Your task to perform on an android device: Search for pizza restaurants on Maps Image 0: 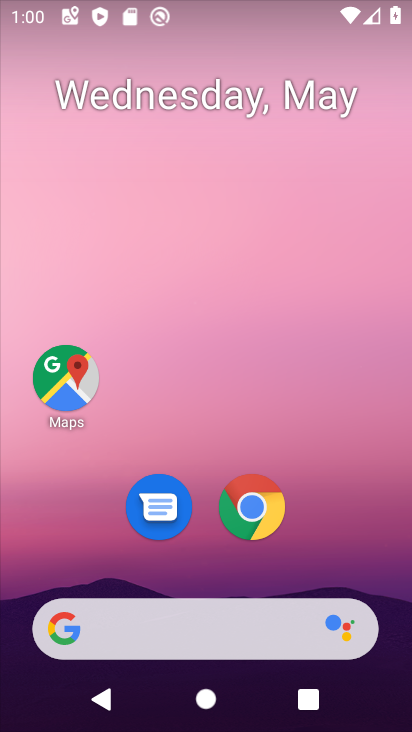
Step 0: click (60, 380)
Your task to perform on an android device: Search for pizza restaurants on Maps Image 1: 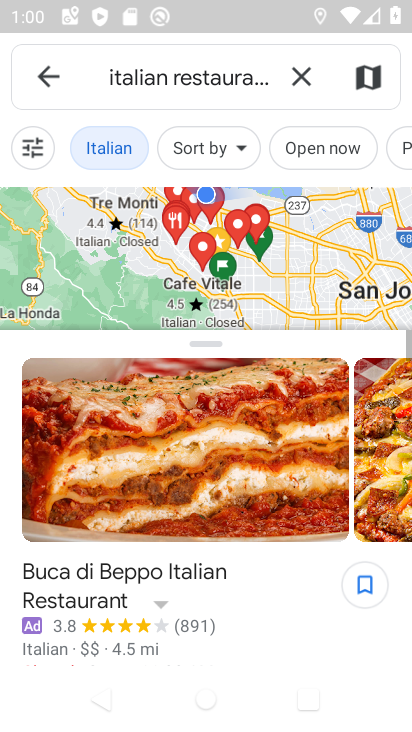
Step 1: click (308, 81)
Your task to perform on an android device: Search for pizza restaurants on Maps Image 2: 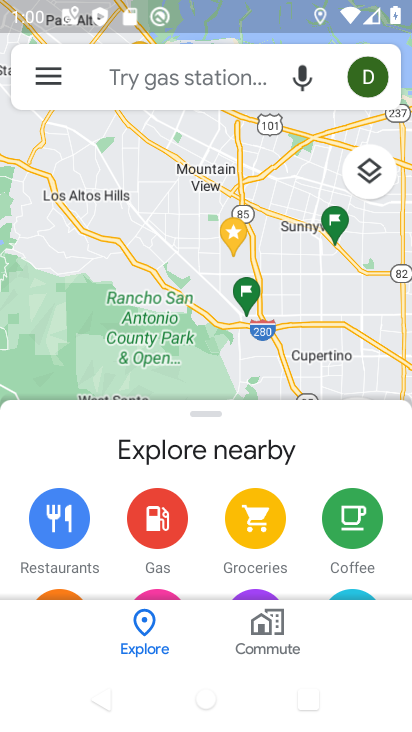
Step 2: click (184, 71)
Your task to perform on an android device: Search for pizza restaurants on Maps Image 3: 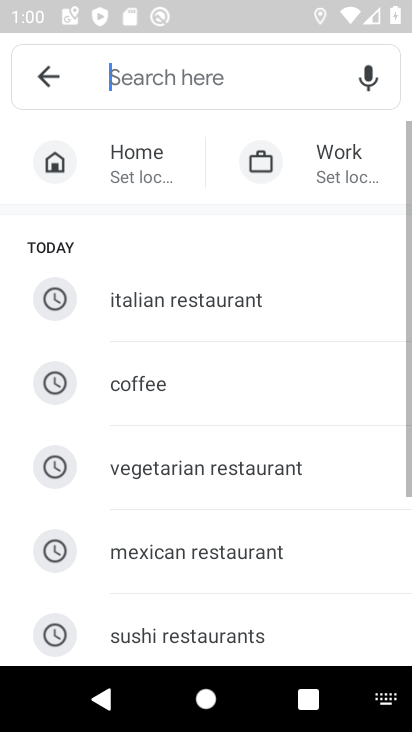
Step 3: drag from (215, 583) to (205, 295)
Your task to perform on an android device: Search for pizza restaurants on Maps Image 4: 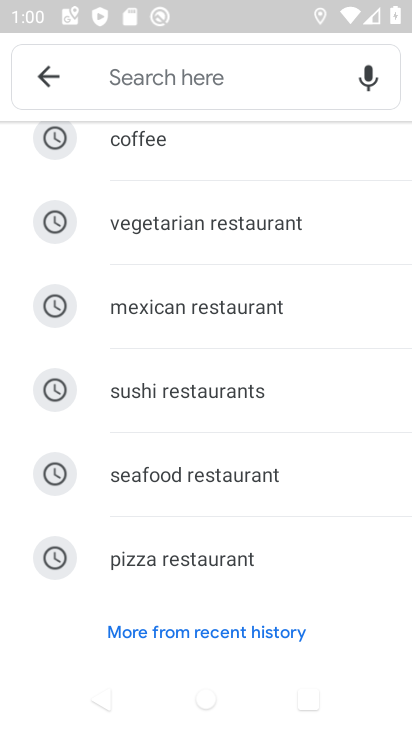
Step 4: click (216, 554)
Your task to perform on an android device: Search for pizza restaurants on Maps Image 5: 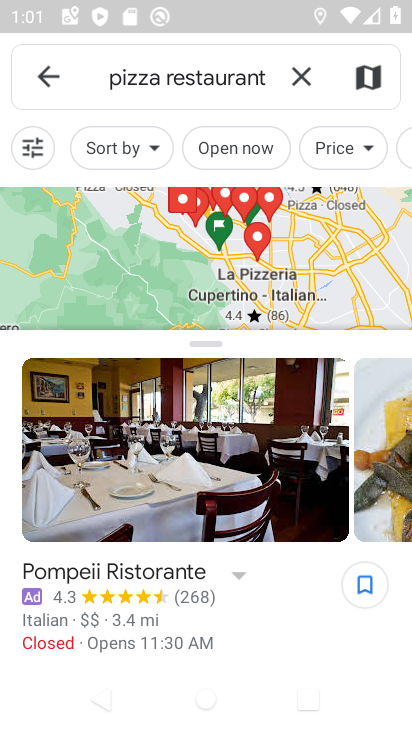
Step 5: task complete